Your task to perform on an android device: turn notification dots off Image 0: 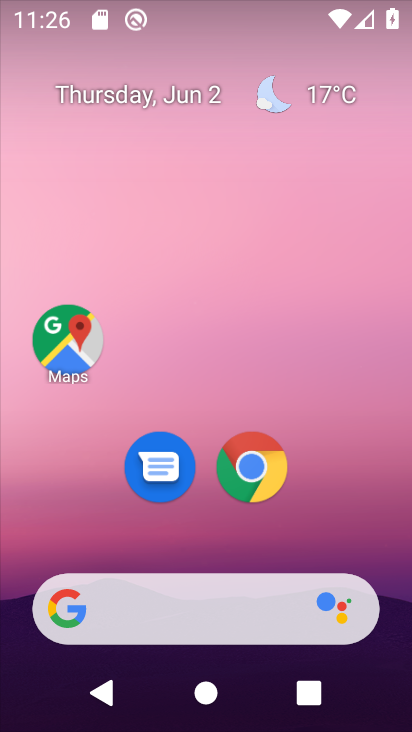
Step 0: drag from (214, 579) to (208, 236)
Your task to perform on an android device: turn notification dots off Image 1: 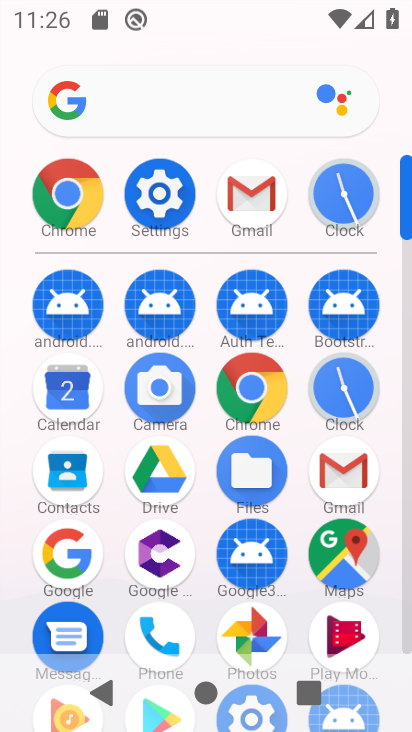
Step 1: click (164, 185)
Your task to perform on an android device: turn notification dots off Image 2: 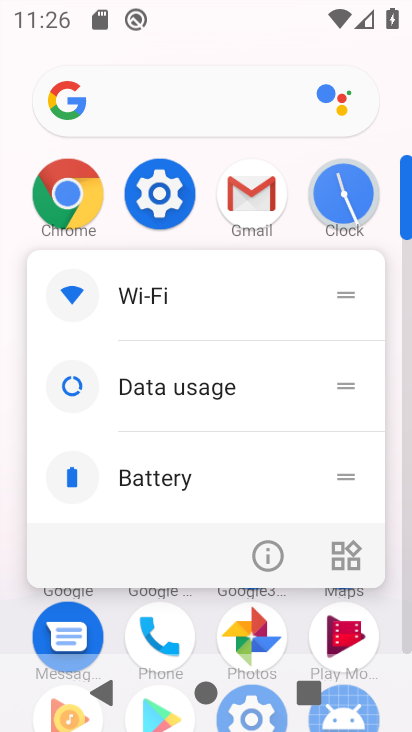
Step 2: click (164, 166)
Your task to perform on an android device: turn notification dots off Image 3: 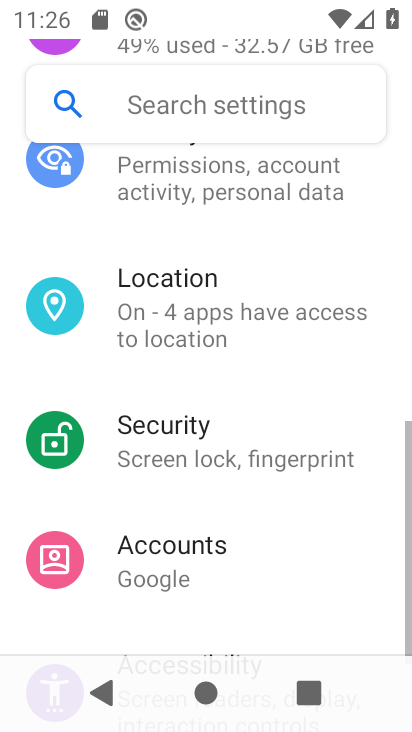
Step 3: click (185, 92)
Your task to perform on an android device: turn notification dots off Image 4: 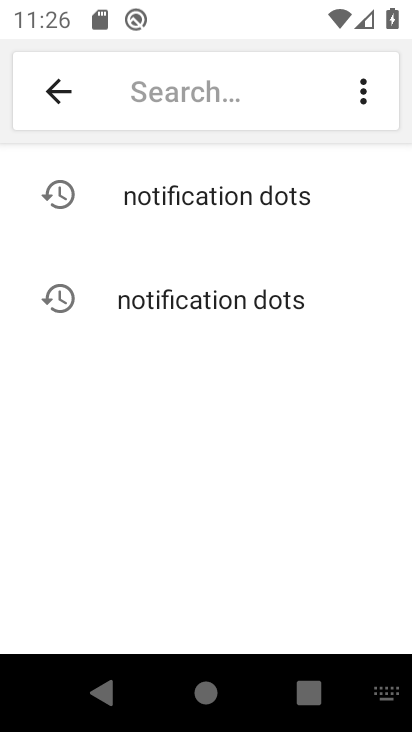
Step 4: click (171, 189)
Your task to perform on an android device: turn notification dots off Image 5: 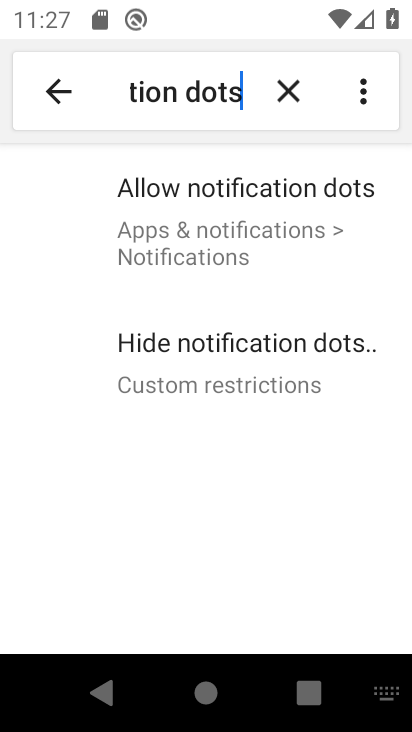
Step 5: click (181, 268)
Your task to perform on an android device: turn notification dots off Image 6: 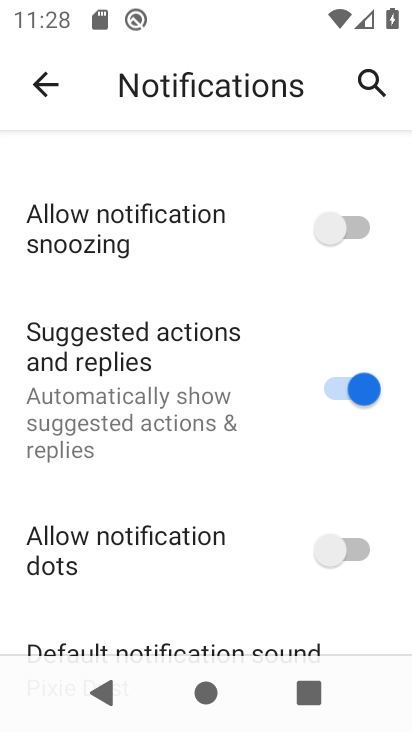
Step 6: task complete